Your task to perform on an android device: see tabs open on other devices in the chrome app Image 0: 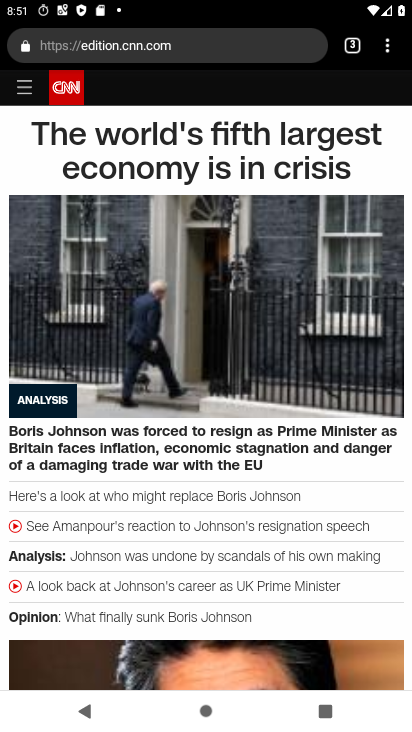
Step 0: press home button
Your task to perform on an android device: see tabs open on other devices in the chrome app Image 1: 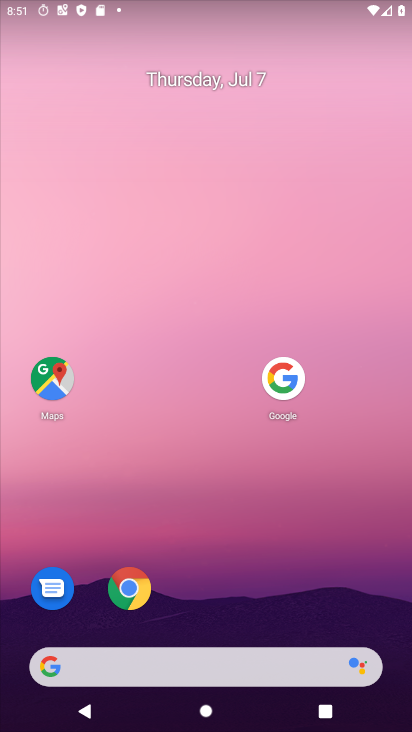
Step 1: click (125, 587)
Your task to perform on an android device: see tabs open on other devices in the chrome app Image 2: 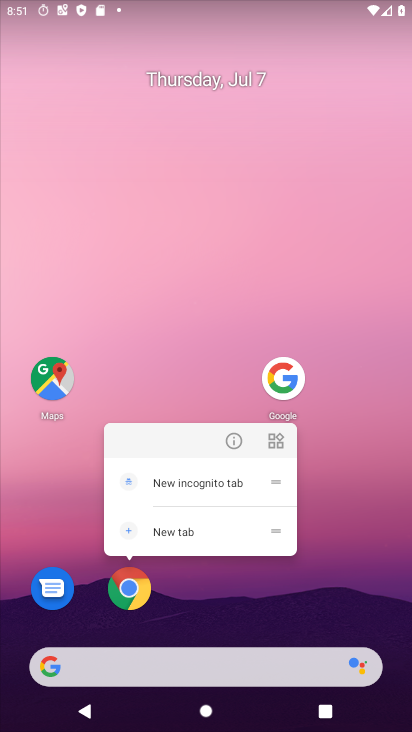
Step 2: click (125, 587)
Your task to perform on an android device: see tabs open on other devices in the chrome app Image 3: 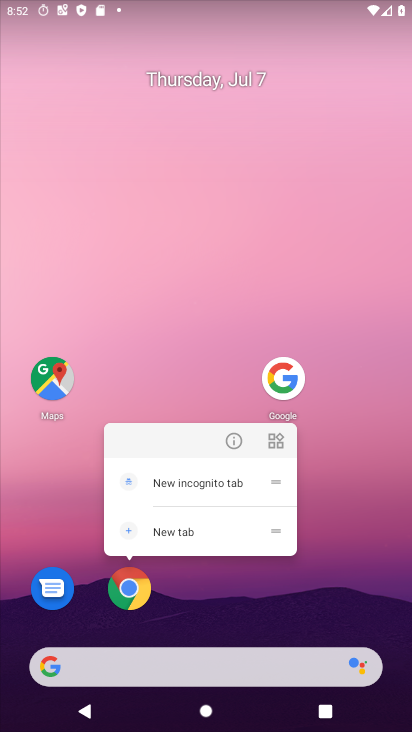
Step 3: click (120, 583)
Your task to perform on an android device: see tabs open on other devices in the chrome app Image 4: 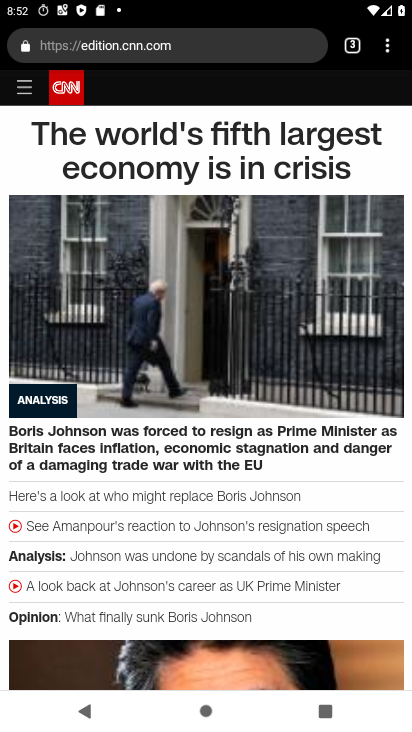
Step 4: task complete